Your task to perform on an android device: all mails in gmail Image 0: 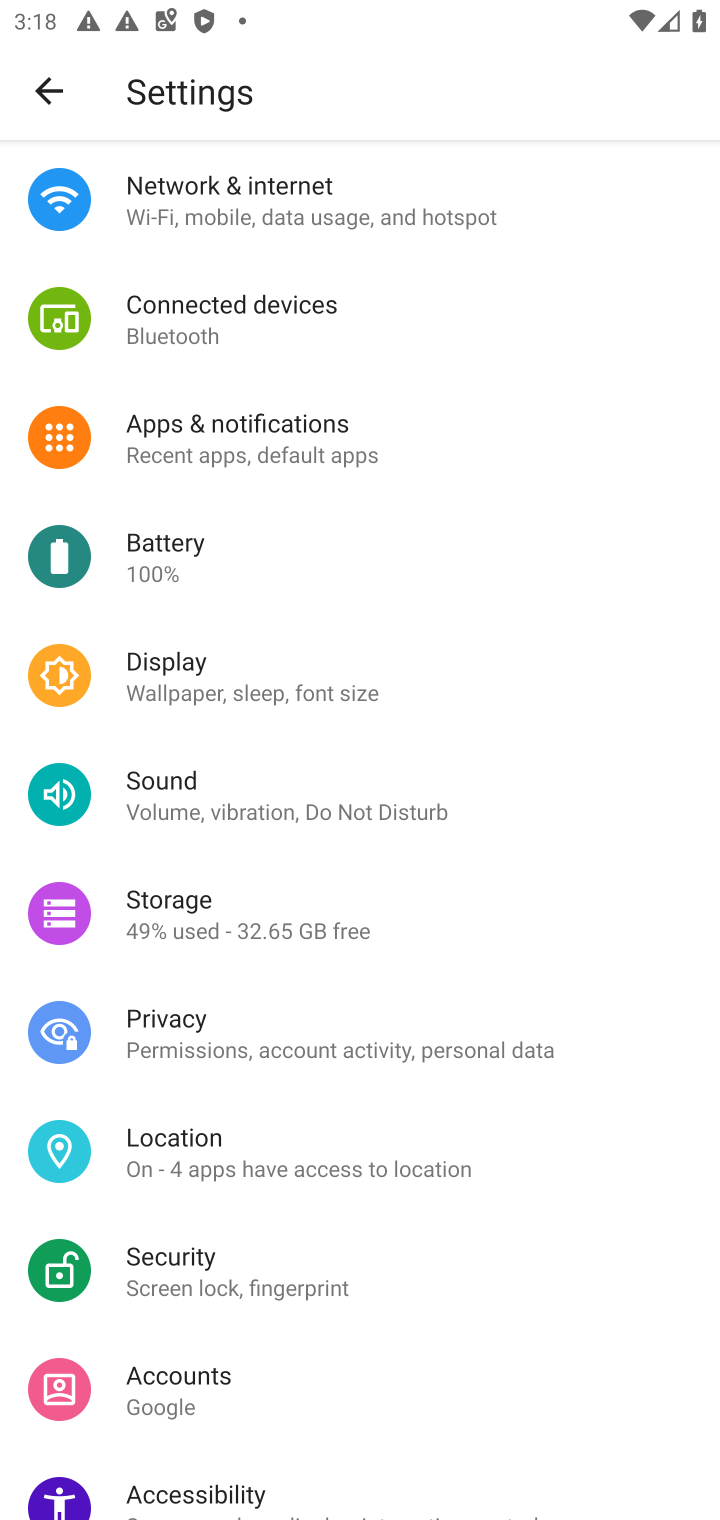
Step 0: press back button
Your task to perform on an android device: all mails in gmail Image 1: 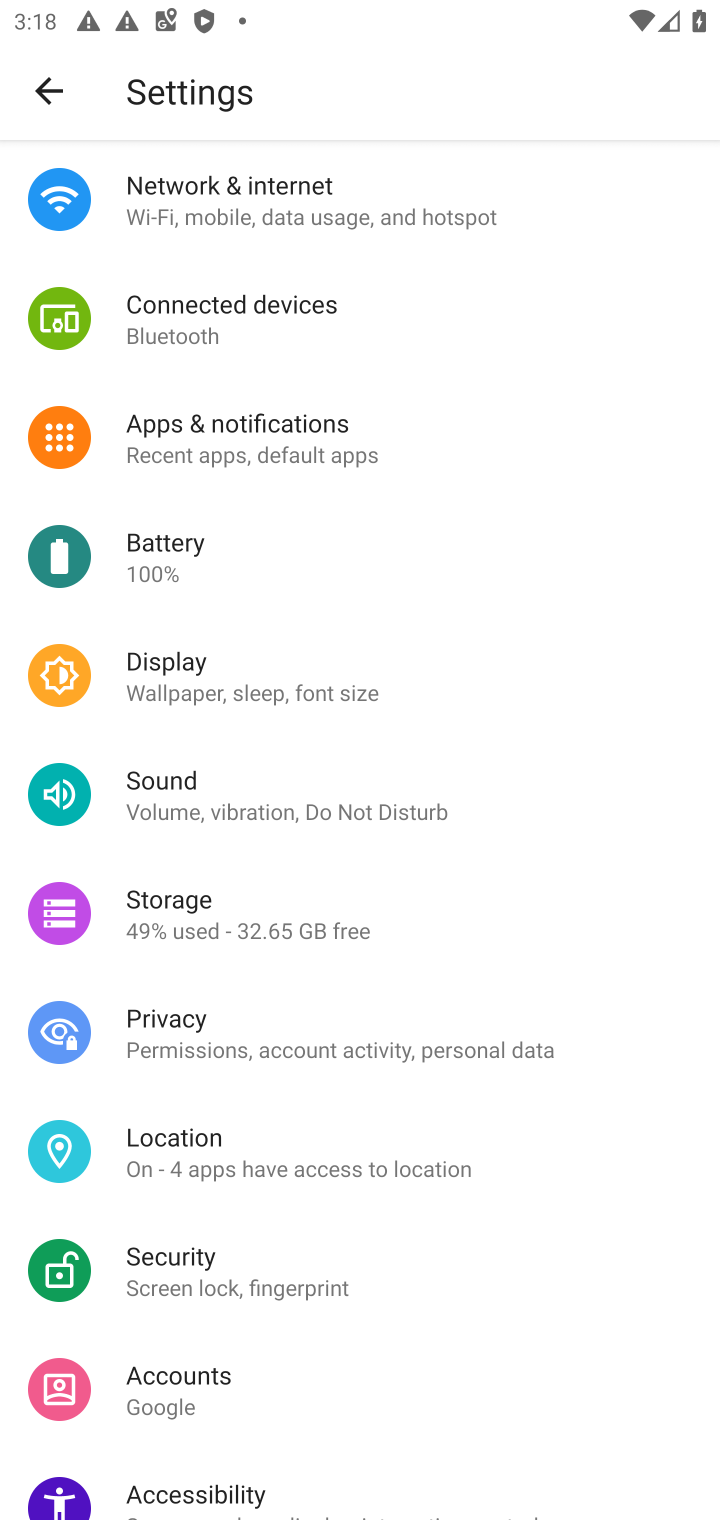
Step 1: press back button
Your task to perform on an android device: all mails in gmail Image 2: 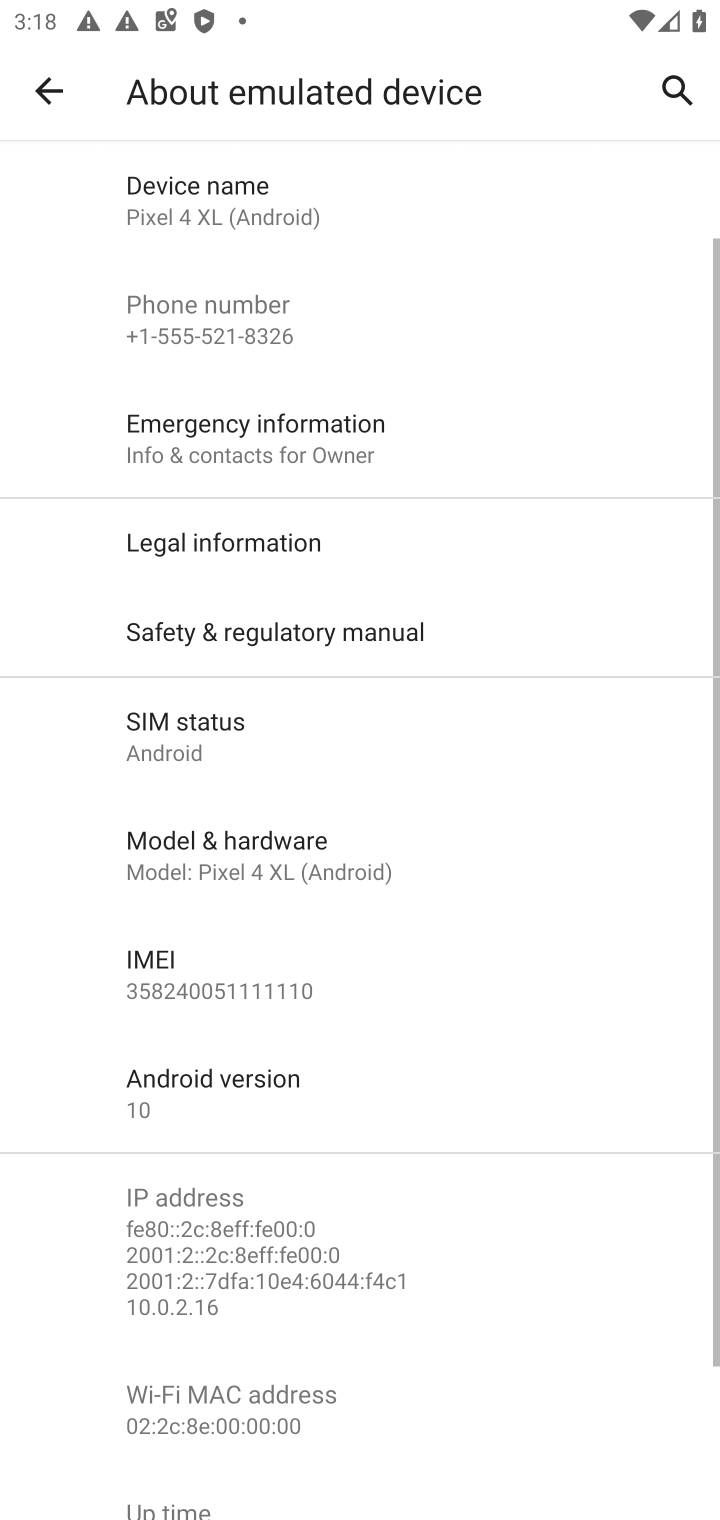
Step 2: press back button
Your task to perform on an android device: all mails in gmail Image 3: 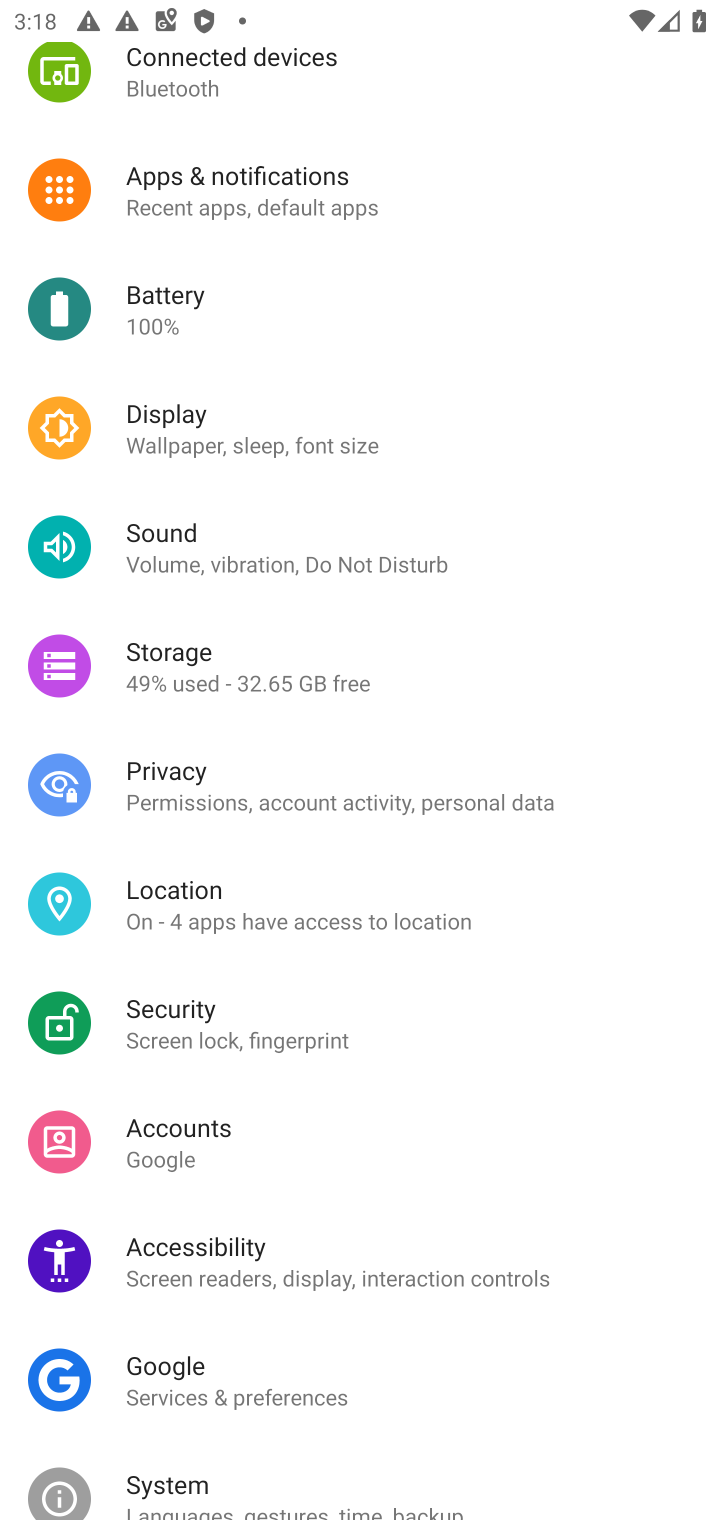
Step 3: press back button
Your task to perform on an android device: all mails in gmail Image 4: 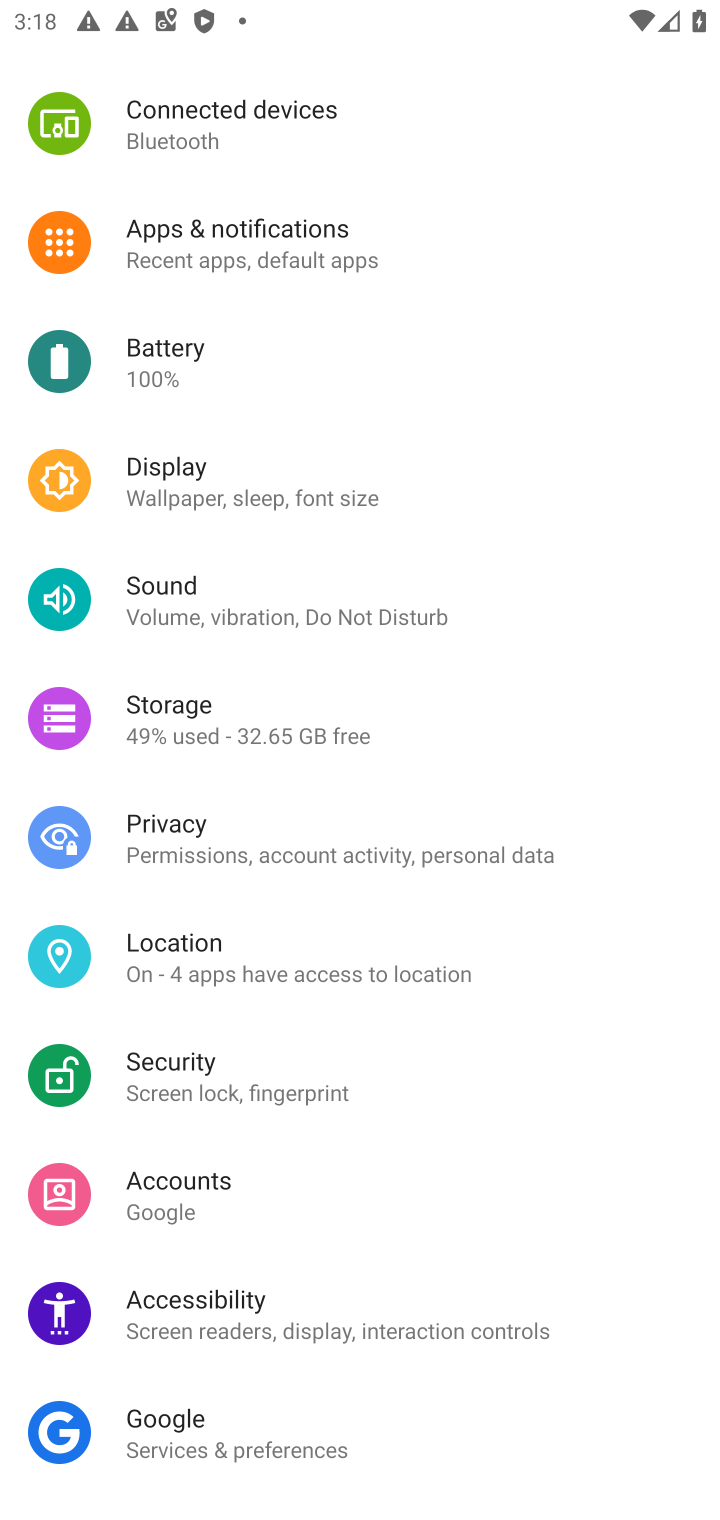
Step 4: press back button
Your task to perform on an android device: all mails in gmail Image 5: 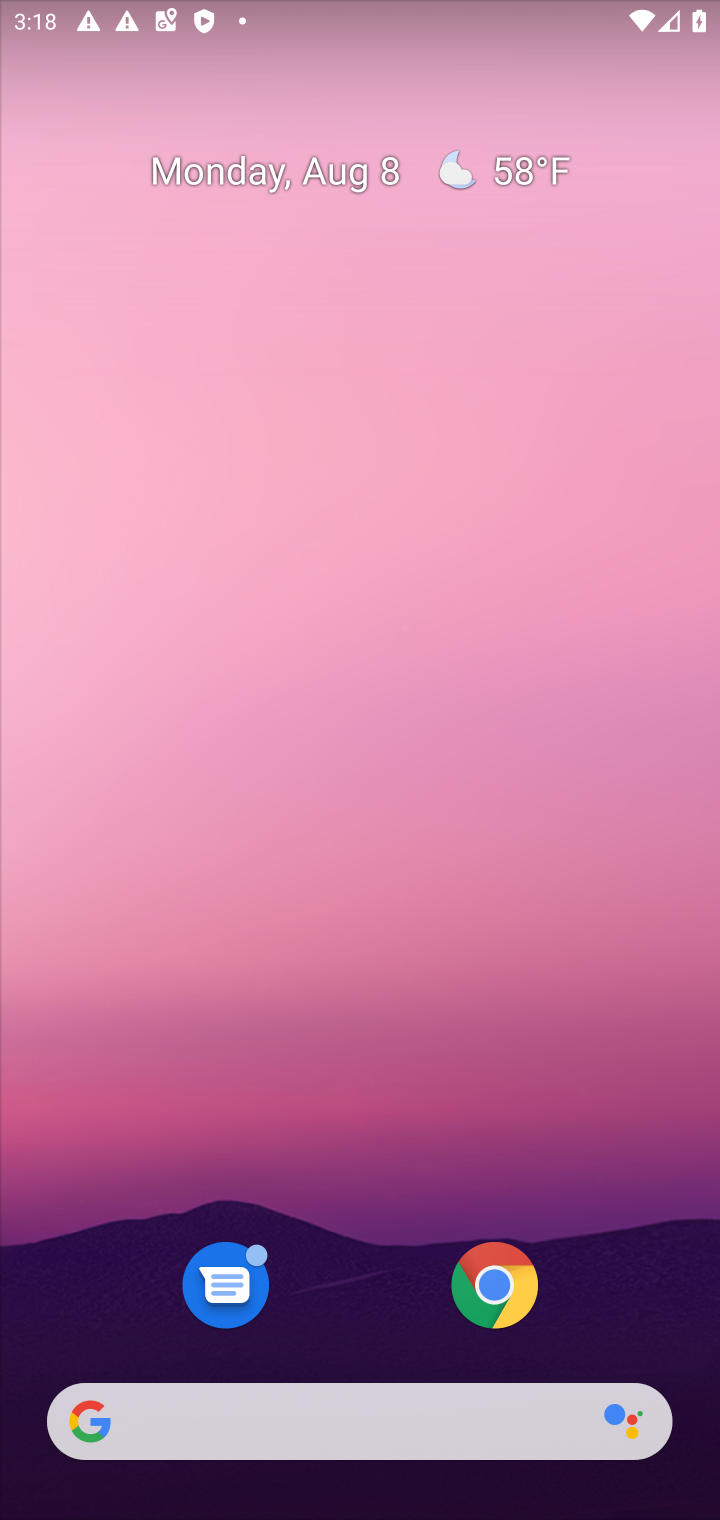
Step 5: press back button
Your task to perform on an android device: all mails in gmail Image 6: 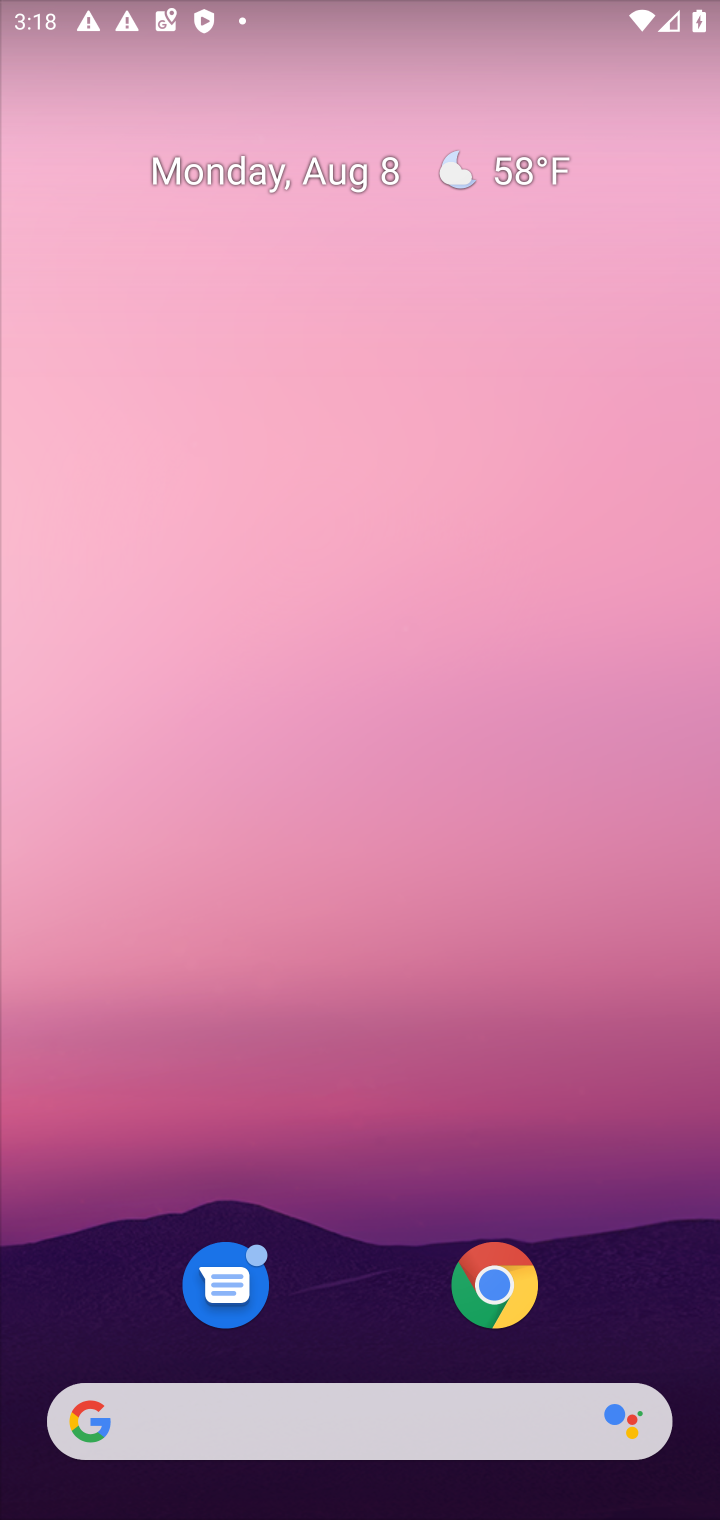
Step 6: drag from (352, 951) to (512, 86)
Your task to perform on an android device: all mails in gmail Image 7: 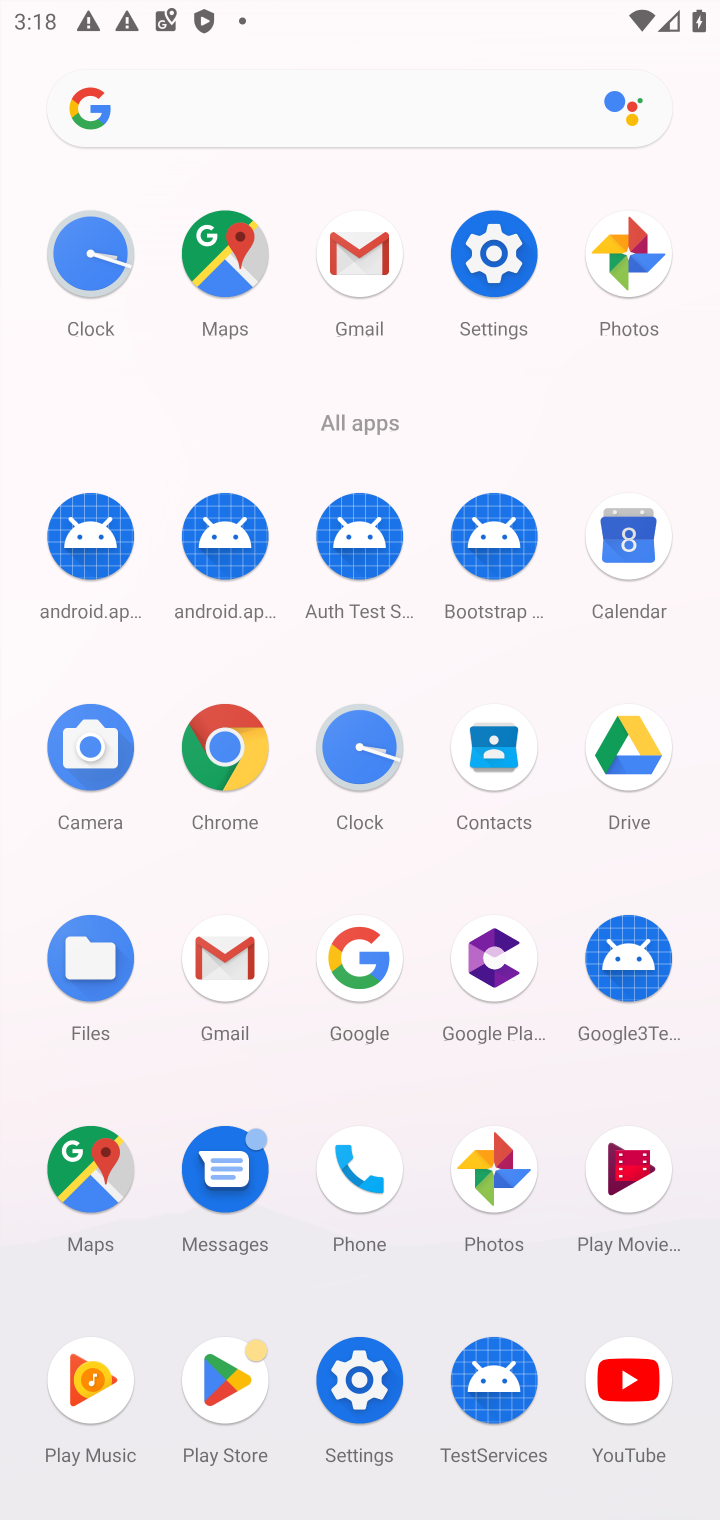
Step 7: click (344, 266)
Your task to perform on an android device: all mails in gmail Image 8: 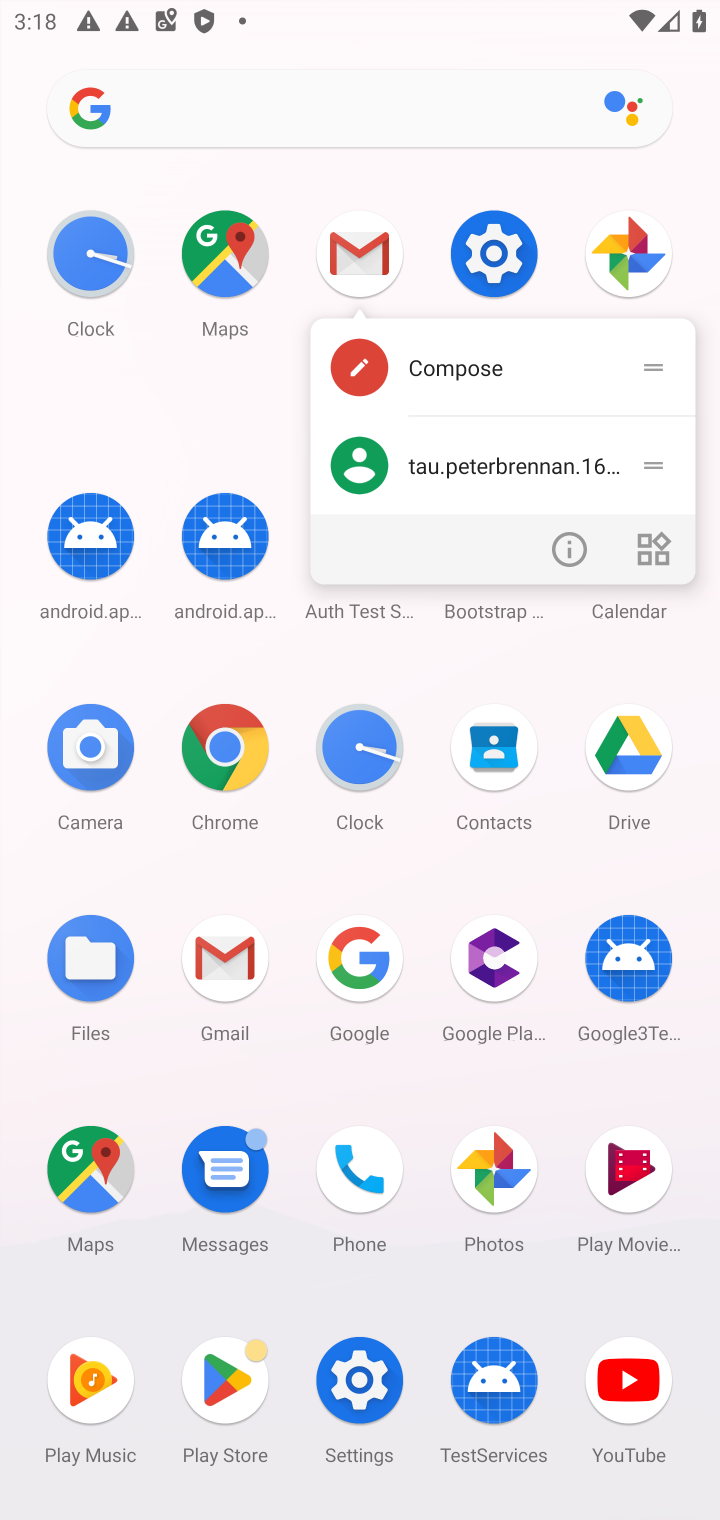
Step 8: click (367, 248)
Your task to perform on an android device: all mails in gmail Image 9: 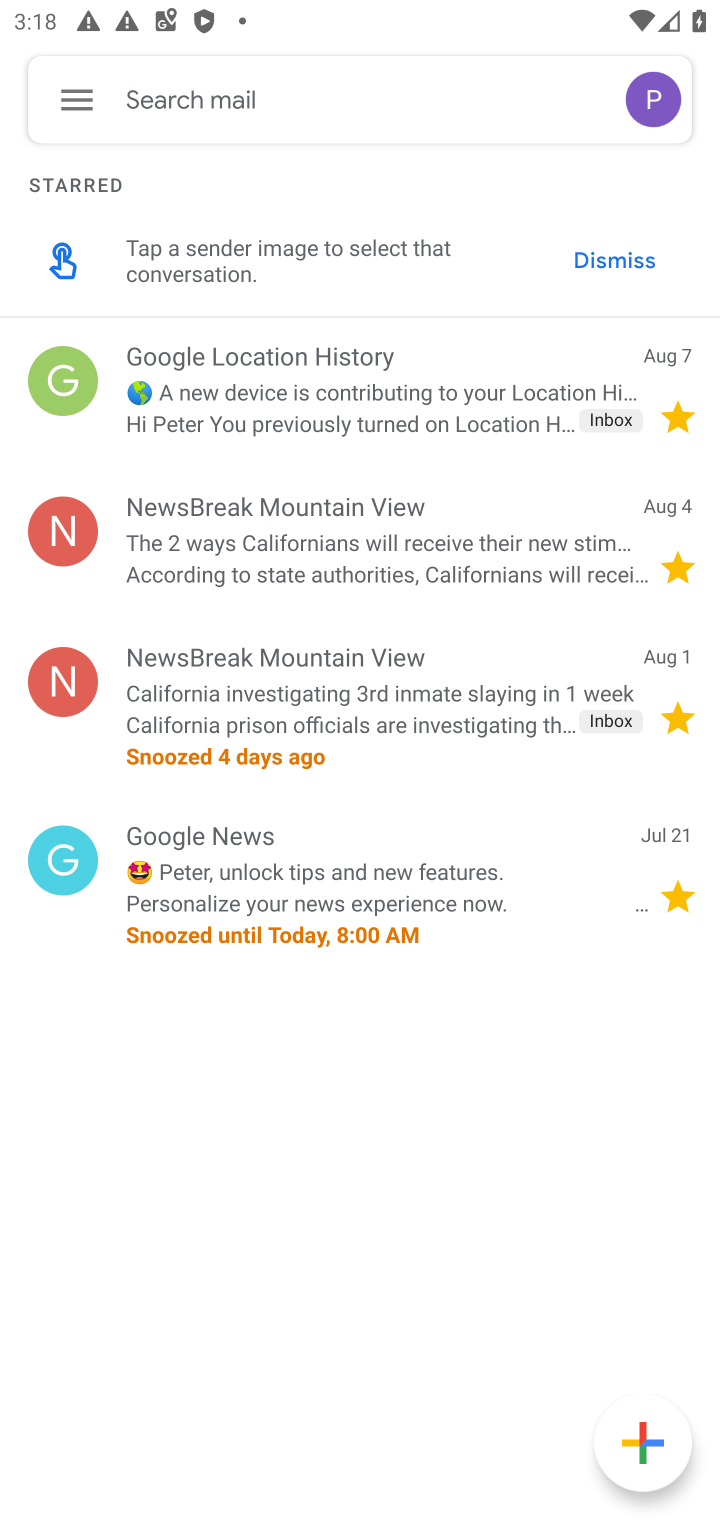
Step 9: click (365, 252)
Your task to perform on an android device: all mails in gmail Image 10: 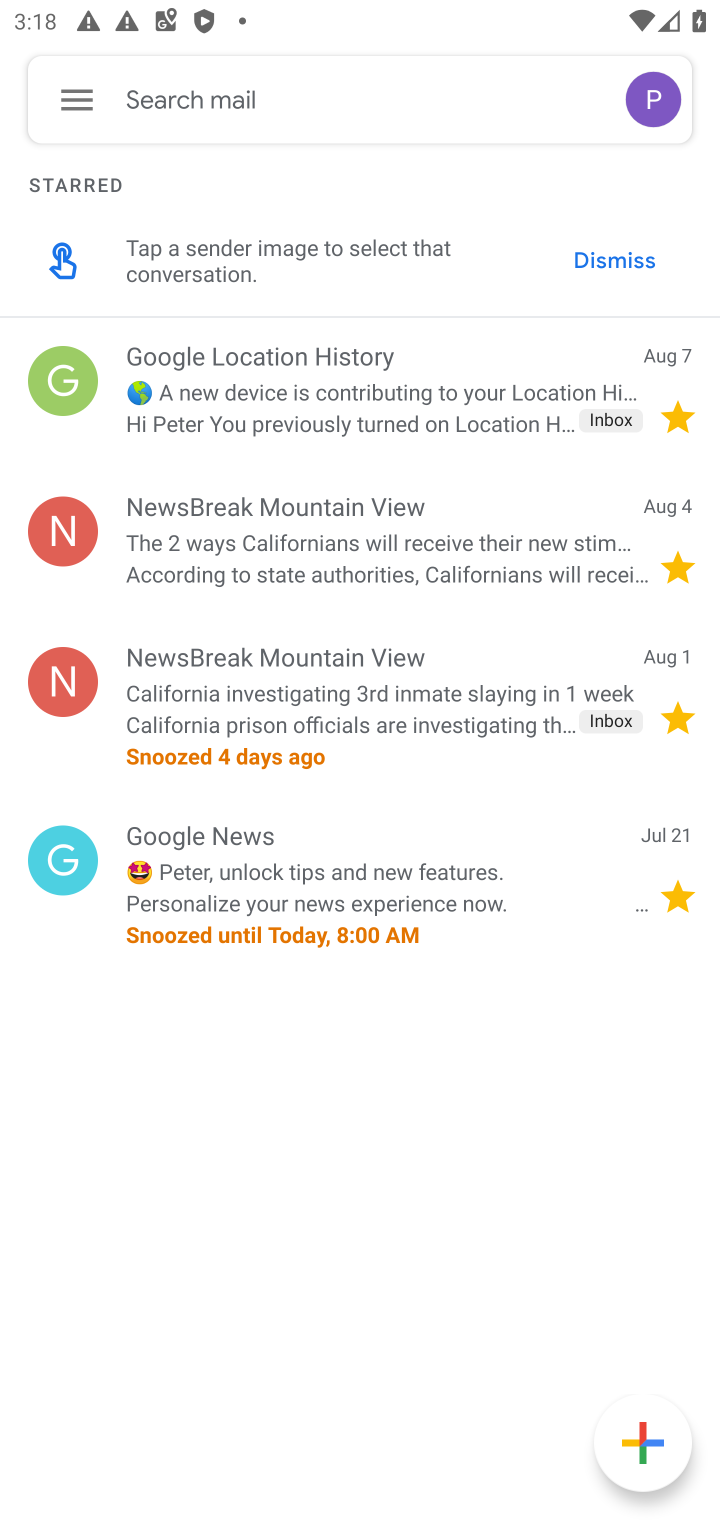
Step 10: click (70, 92)
Your task to perform on an android device: all mails in gmail Image 11: 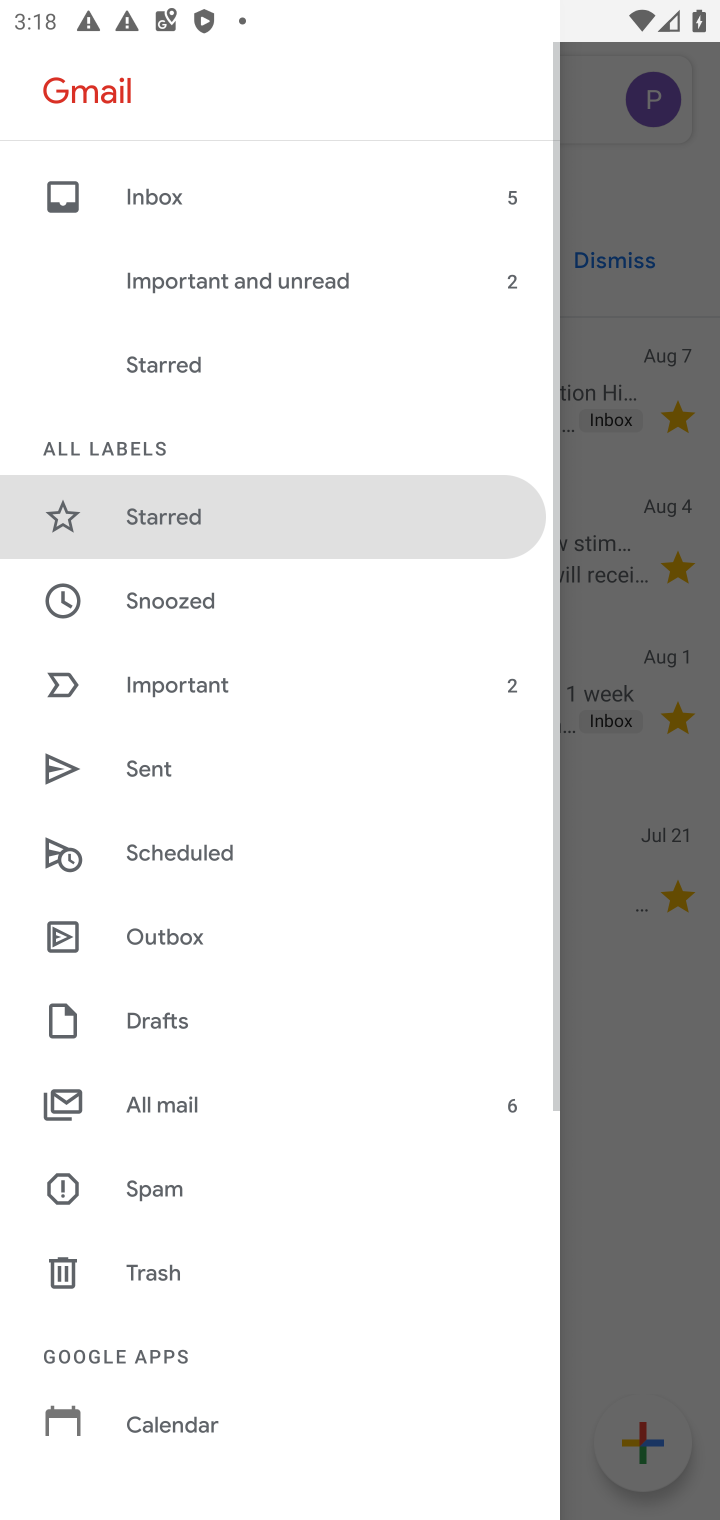
Step 11: click (161, 1086)
Your task to perform on an android device: all mails in gmail Image 12: 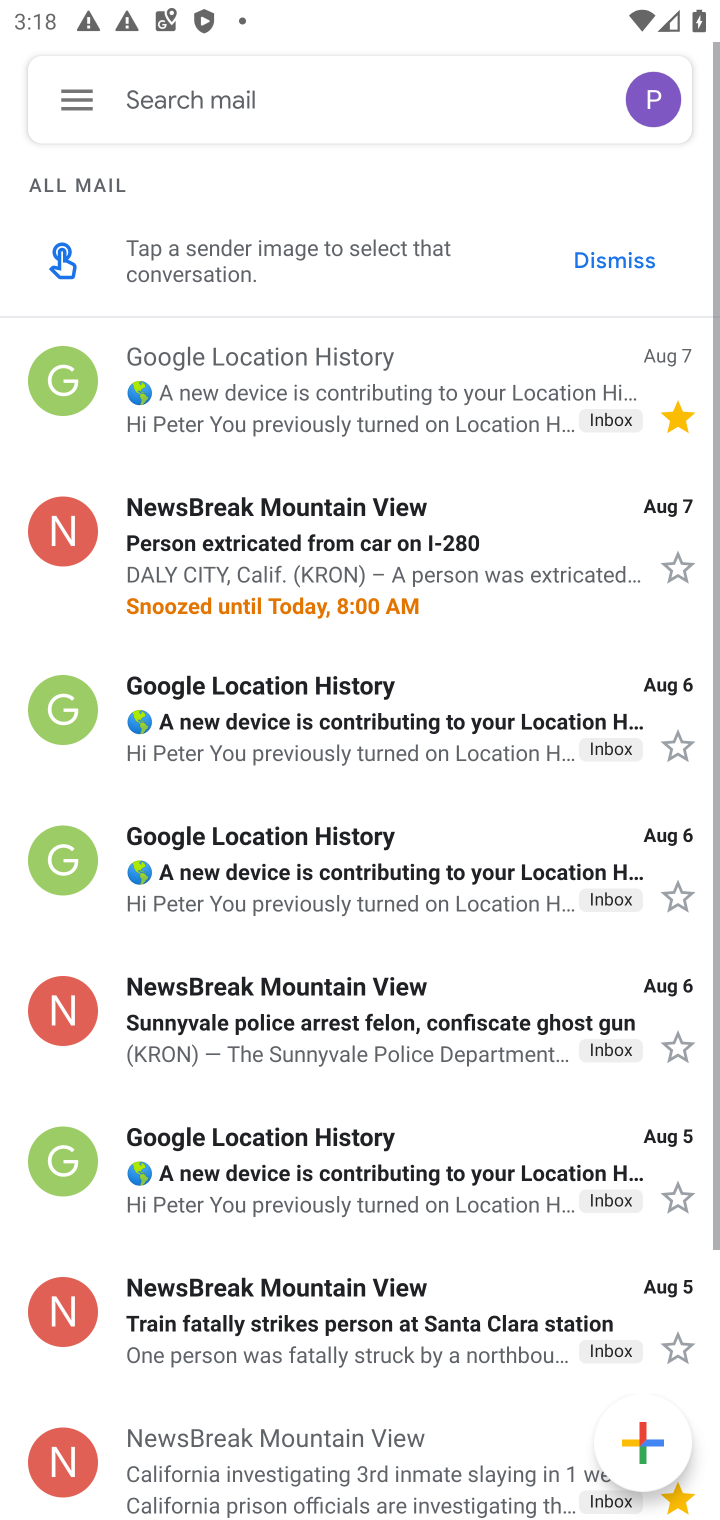
Step 12: task complete